Your task to perform on an android device: Open location settings Image 0: 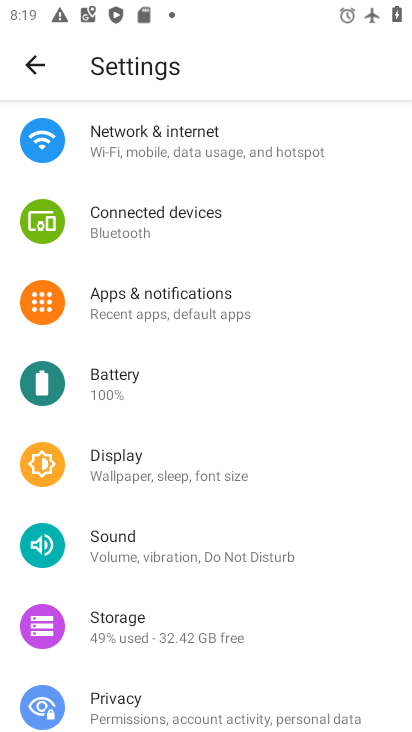
Step 0: drag from (172, 626) to (168, 334)
Your task to perform on an android device: Open location settings Image 1: 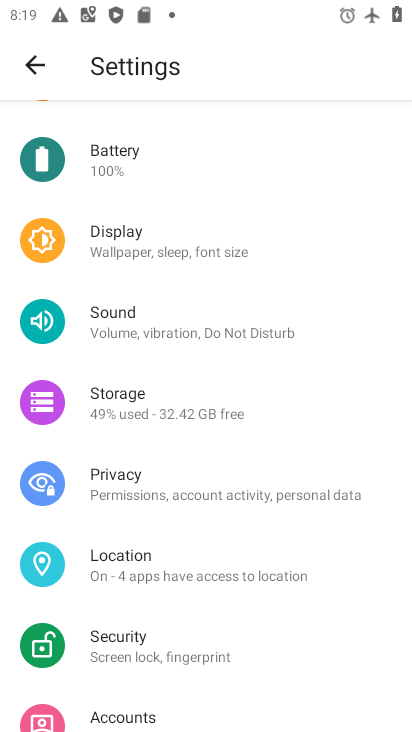
Step 1: click (128, 556)
Your task to perform on an android device: Open location settings Image 2: 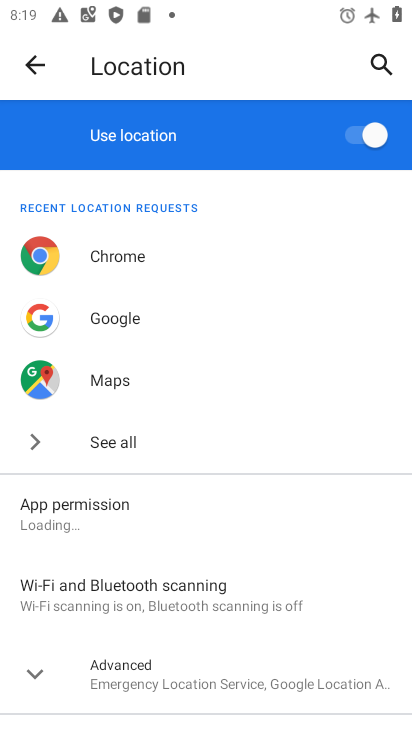
Step 2: task complete